Your task to perform on an android device: Open Chrome and go to the settings page Image 0: 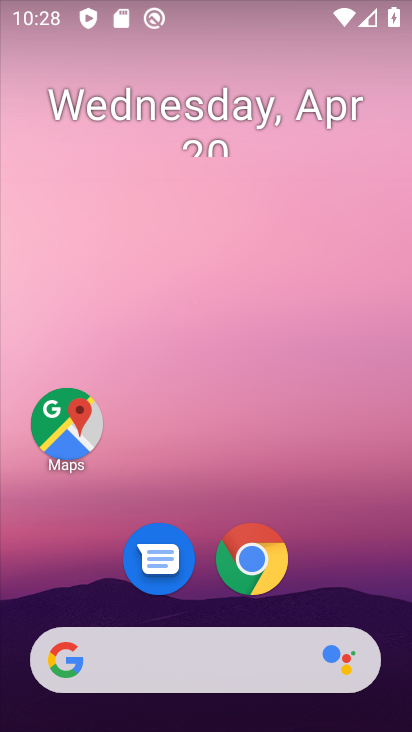
Step 0: drag from (282, 605) to (256, 10)
Your task to perform on an android device: Open Chrome and go to the settings page Image 1: 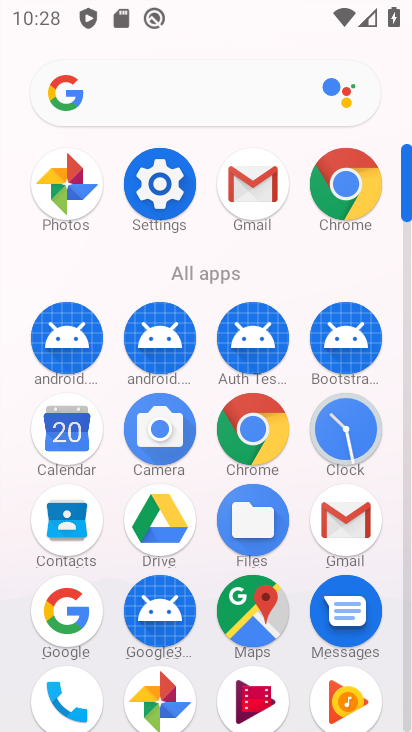
Step 1: click (250, 441)
Your task to perform on an android device: Open Chrome and go to the settings page Image 2: 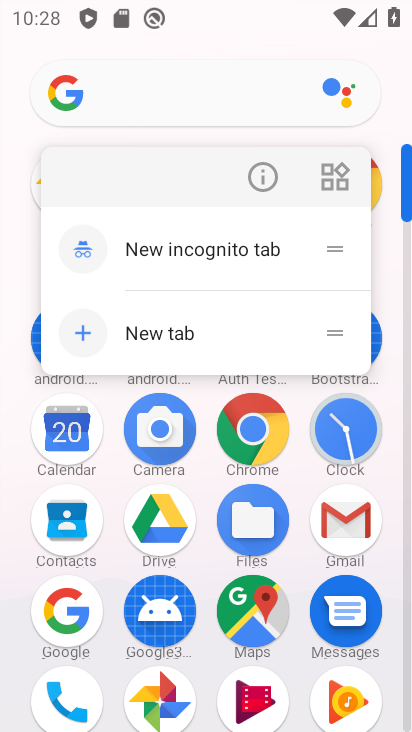
Step 2: click (250, 441)
Your task to perform on an android device: Open Chrome and go to the settings page Image 3: 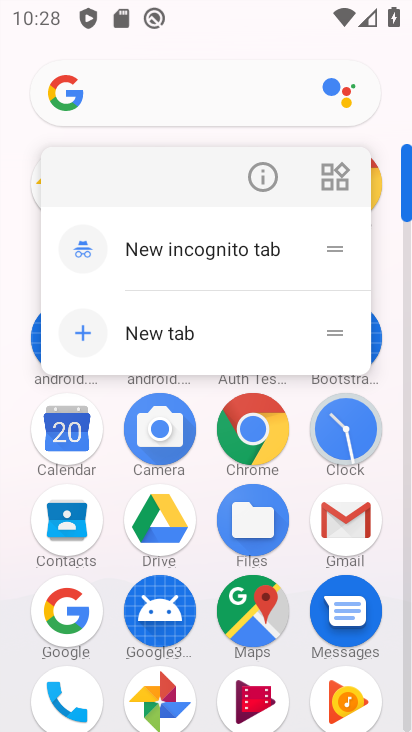
Step 3: click (250, 441)
Your task to perform on an android device: Open Chrome and go to the settings page Image 4: 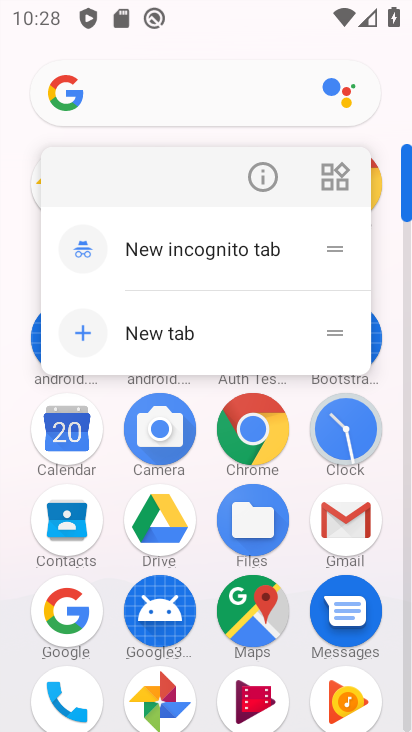
Step 4: click (255, 436)
Your task to perform on an android device: Open Chrome and go to the settings page Image 5: 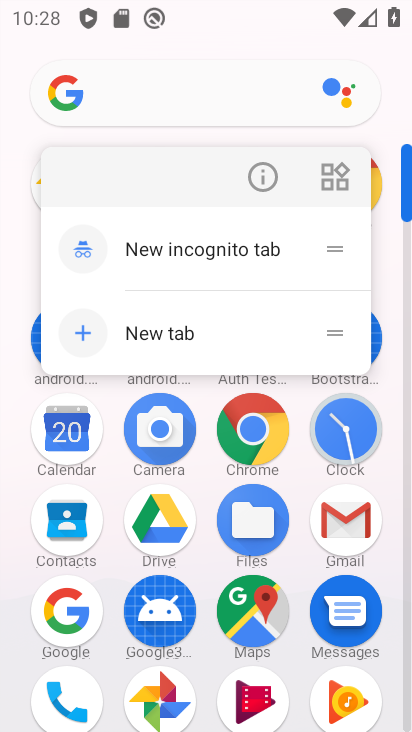
Step 5: click (255, 436)
Your task to perform on an android device: Open Chrome and go to the settings page Image 6: 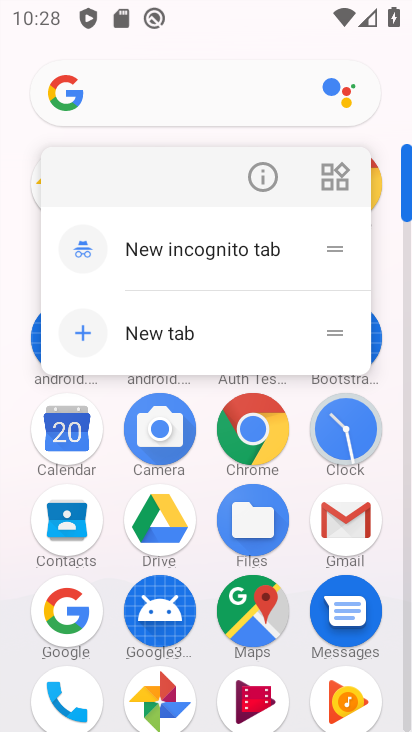
Step 6: click (255, 436)
Your task to perform on an android device: Open Chrome and go to the settings page Image 7: 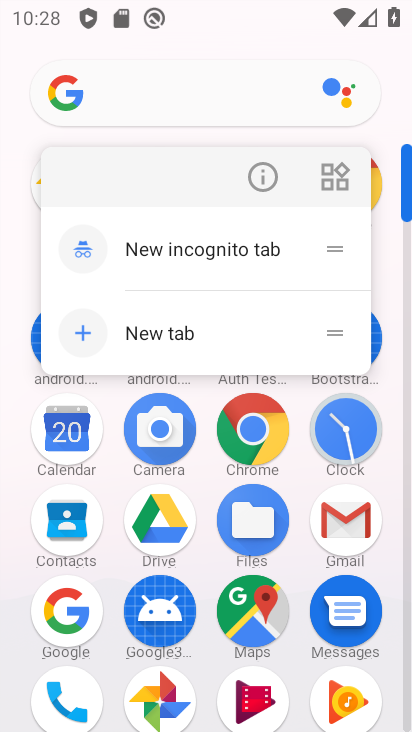
Step 7: click (255, 436)
Your task to perform on an android device: Open Chrome and go to the settings page Image 8: 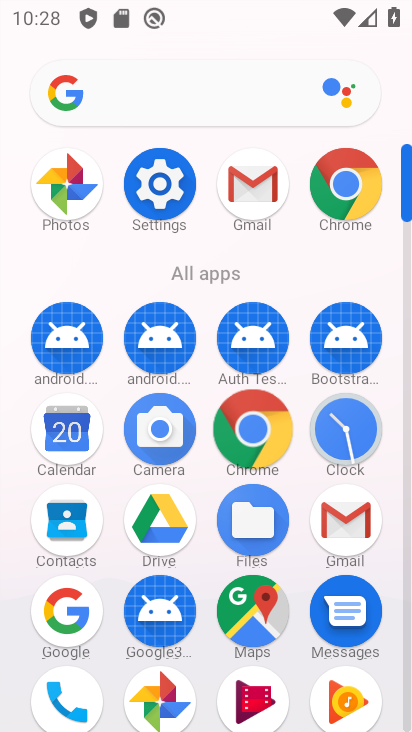
Step 8: click (255, 436)
Your task to perform on an android device: Open Chrome and go to the settings page Image 9: 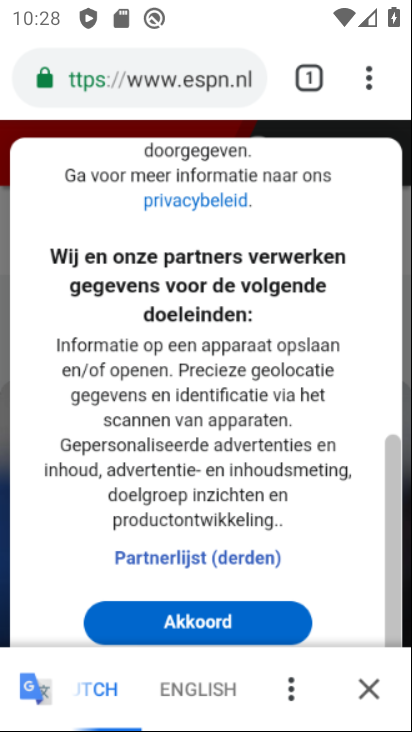
Step 9: click (255, 436)
Your task to perform on an android device: Open Chrome and go to the settings page Image 10: 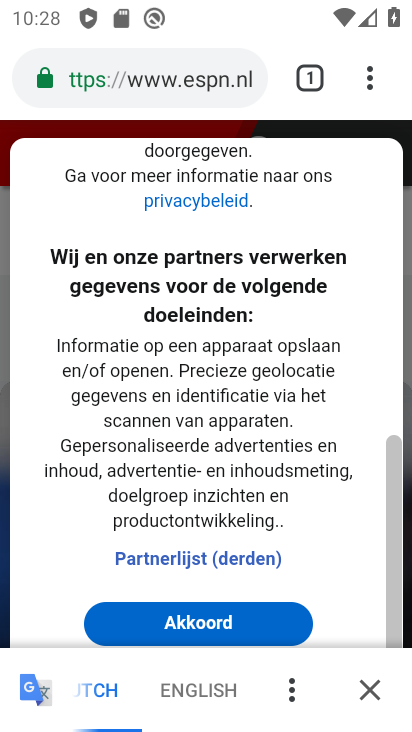
Step 10: task complete